Your task to perform on an android device: delete browsing data in the chrome app Image 0: 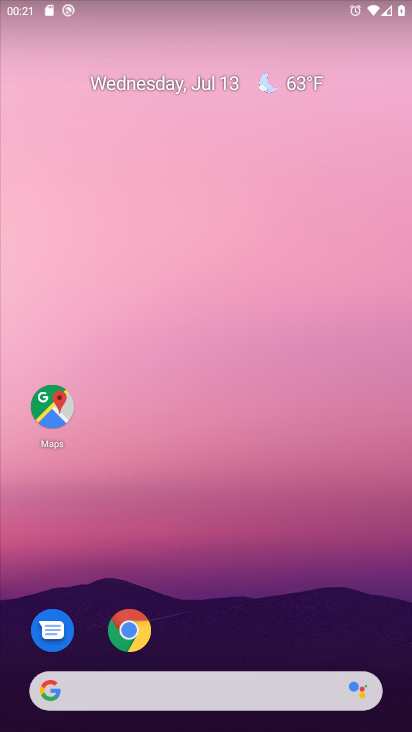
Step 0: click (148, 645)
Your task to perform on an android device: delete browsing data in the chrome app Image 1: 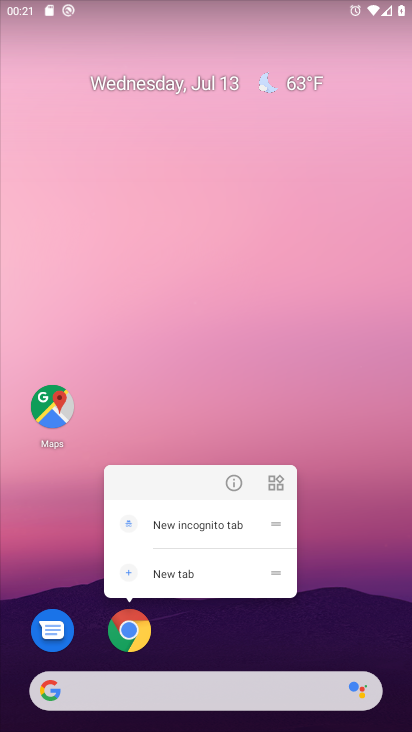
Step 1: click (139, 639)
Your task to perform on an android device: delete browsing data in the chrome app Image 2: 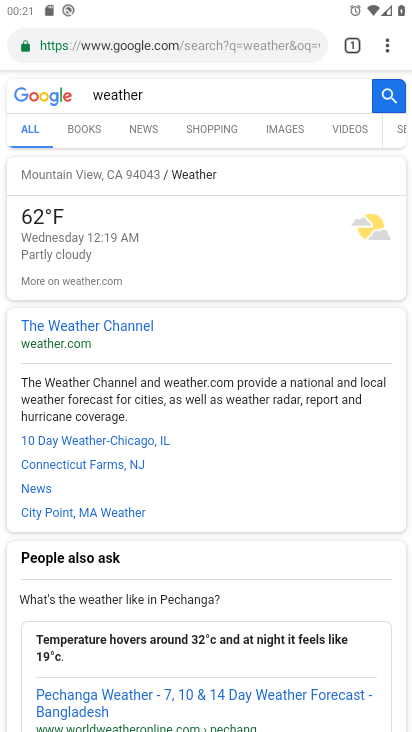
Step 2: drag from (389, 43) to (235, 259)
Your task to perform on an android device: delete browsing data in the chrome app Image 3: 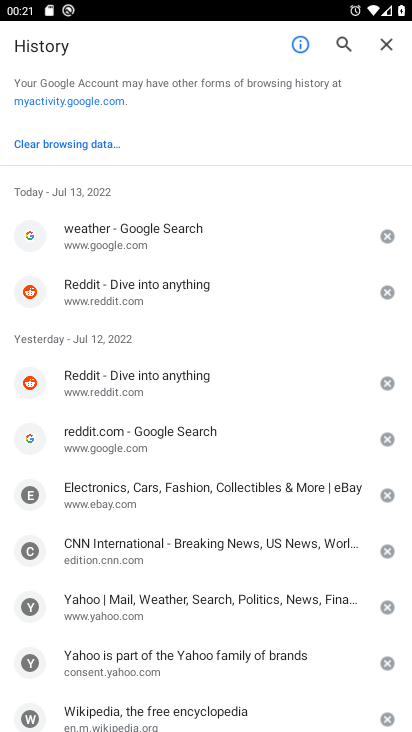
Step 3: click (62, 142)
Your task to perform on an android device: delete browsing data in the chrome app Image 4: 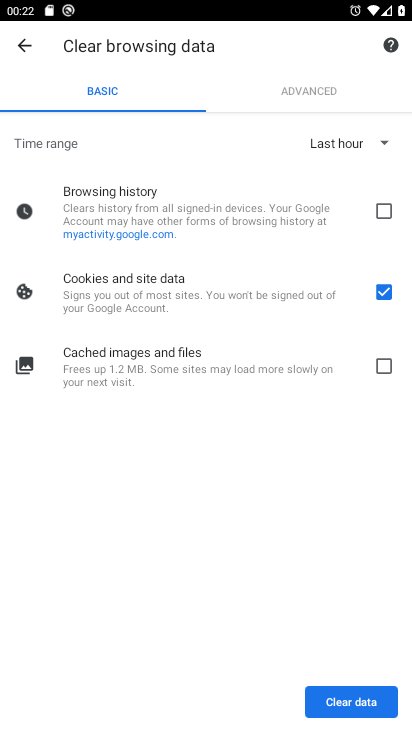
Step 4: click (387, 205)
Your task to perform on an android device: delete browsing data in the chrome app Image 5: 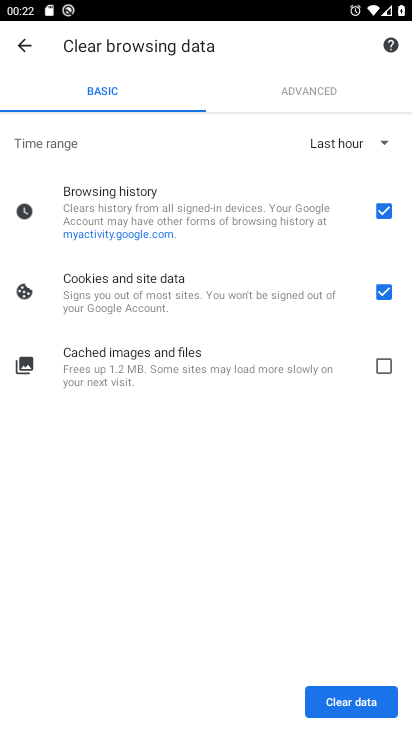
Step 5: click (339, 696)
Your task to perform on an android device: delete browsing data in the chrome app Image 6: 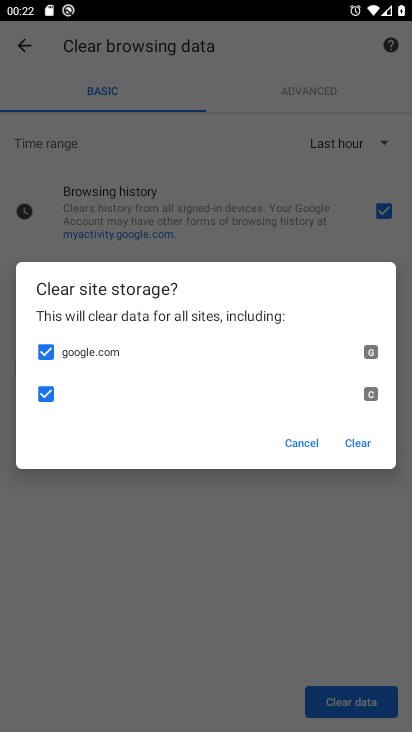
Step 6: click (347, 437)
Your task to perform on an android device: delete browsing data in the chrome app Image 7: 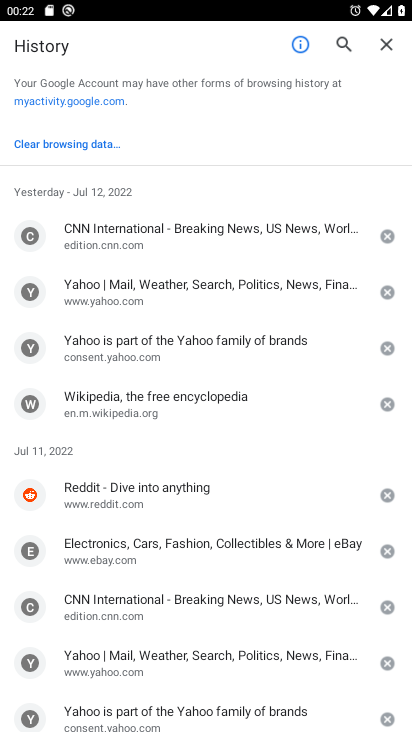
Step 7: task complete